Your task to perform on an android device: Go to display settings Image 0: 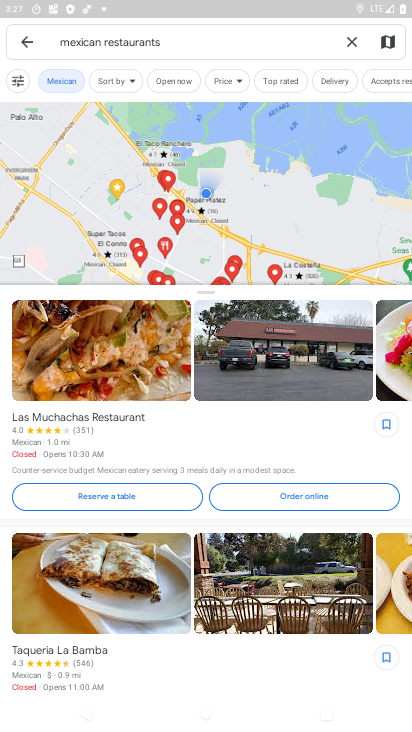
Step 0: press home button
Your task to perform on an android device: Go to display settings Image 1: 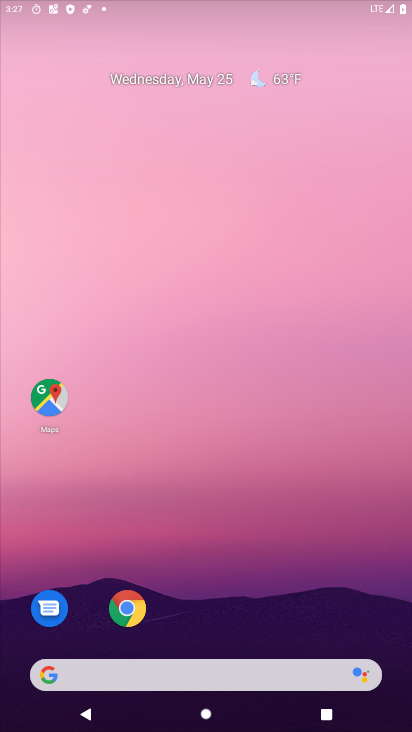
Step 1: drag from (300, 570) to (173, 34)
Your task to perform on an android device: Go to display settings Image 2: 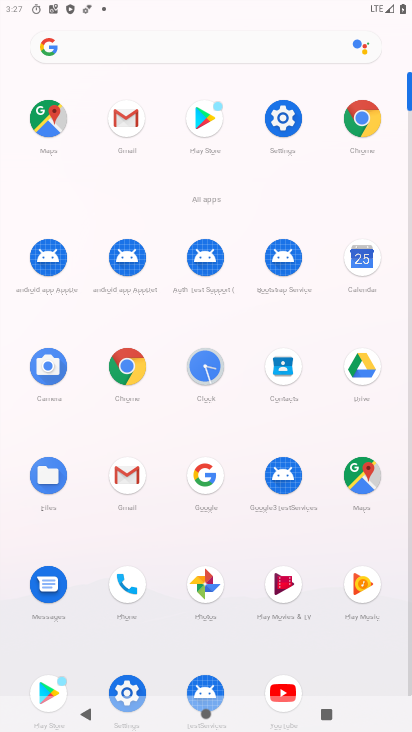
Step 2: click (288, 126)
Your task to perform on an android device: Go to display settings Image 3: 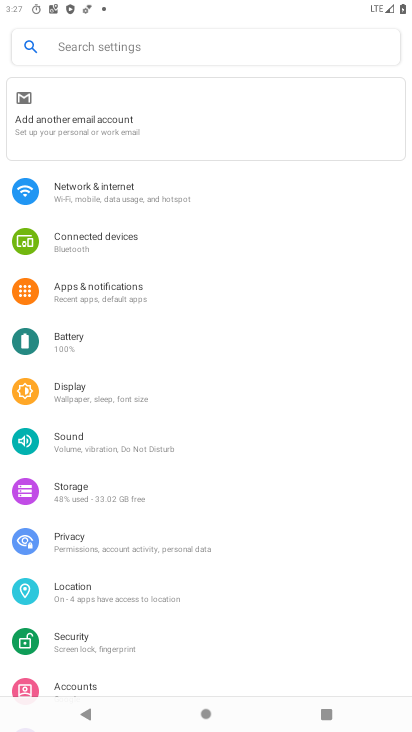
Step 3: click (78, 393)
Your task to perform on an android device: Go to display settings Image 4: 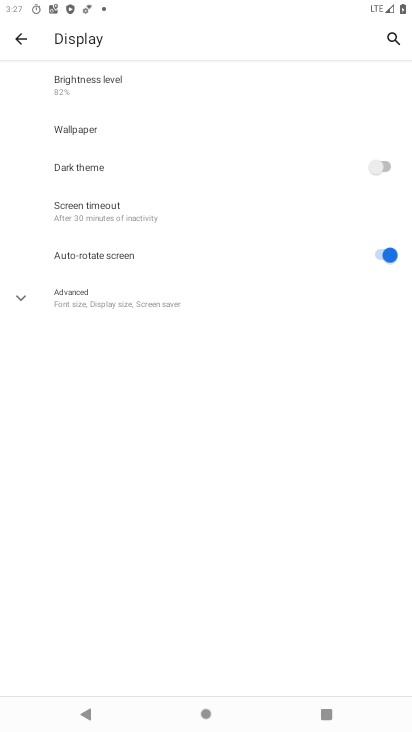
Step 4: task complete